Your task to perform on an android device: star an email in the gmail app Image 0: 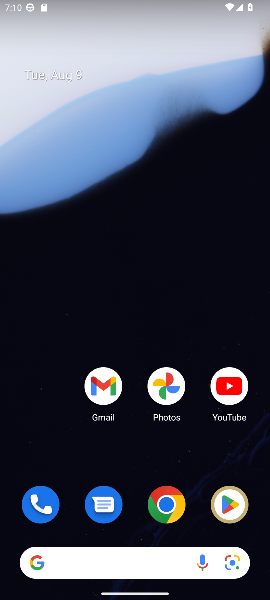
Step 0: drag from (71, 529) to (33, 114)
Your task to perform on an android device: star an email in the gmail app Image 1: 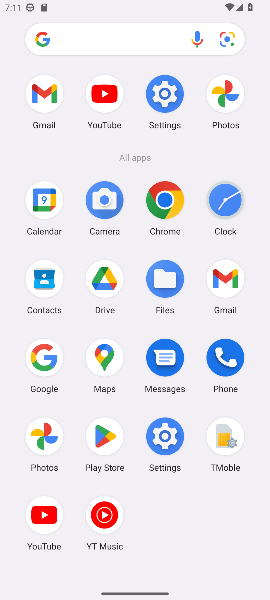
Step 1: click (222, 270)
Your task to perform on an android device: star an email in the gmail app Image 2: 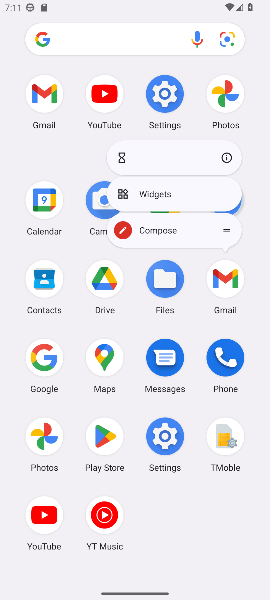
Step 2: click (233, 276)
Your task to perform on an android device: star an email in the gmail app Image 3: 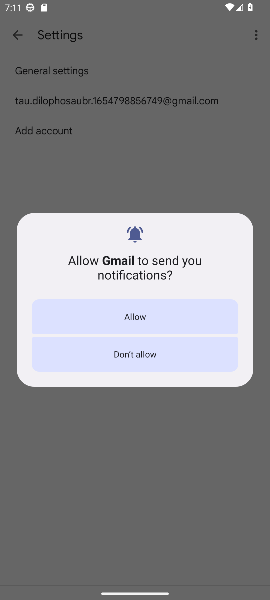
Step 3: click (163, 314)
Your task to perform on an android device: star an email in the gmail app Image 4: 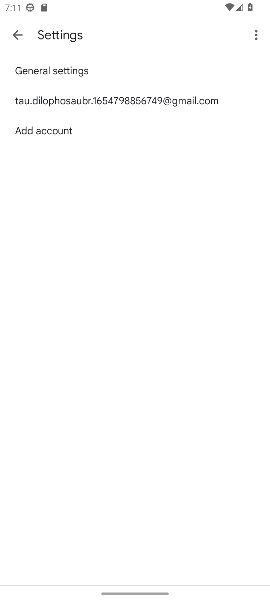
Step 4: click (7, 30)
Your task to perform on an android device: star an email in the gmail app Image 5: 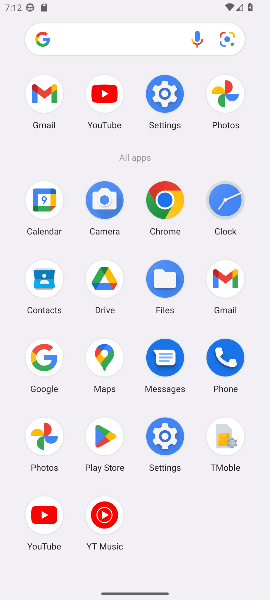
Step 5: click (230, 297)
Your task to perform on an android device: star an email in the gmail app Image 6: 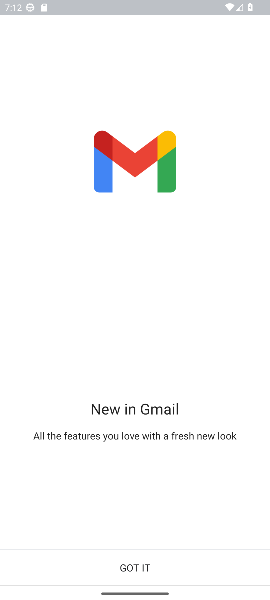
Step 6: click (169, 572)
Your task to perform on an android device: star an email in the gmail app Image 7: 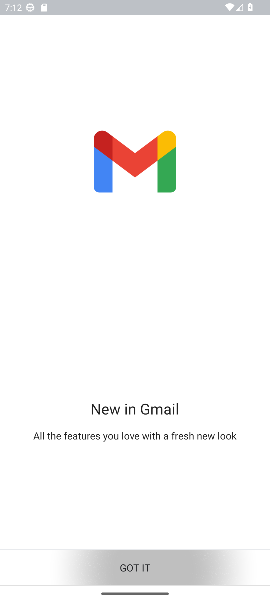
Step 7: click (169, 572)
Your task to perform on an android device: star an email in the gmail app Image 8: 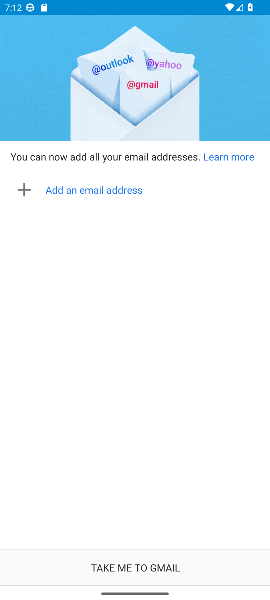
Step 8: click (169, 572)
Your task to perform on an android device: star an email in the gmail app Image 9: 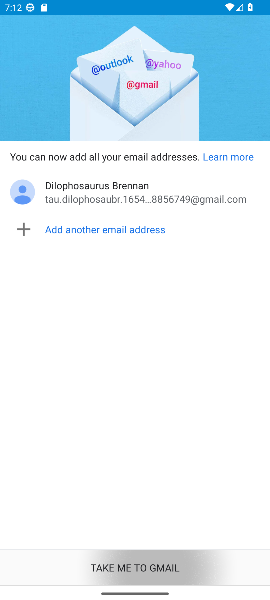
Step 9: click (169, 572)
Your task to perform on an android device: star an email in the gmail app Image 10: 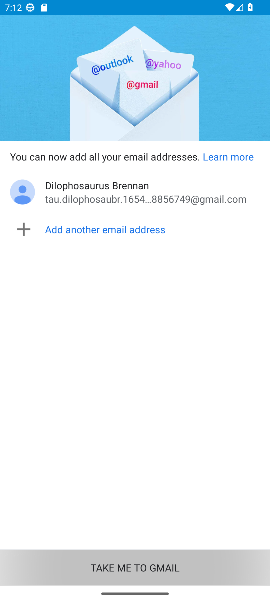
Step 10: click (169, 572)
Your task to perform on an android device: star an email in the gmail app Image 11: 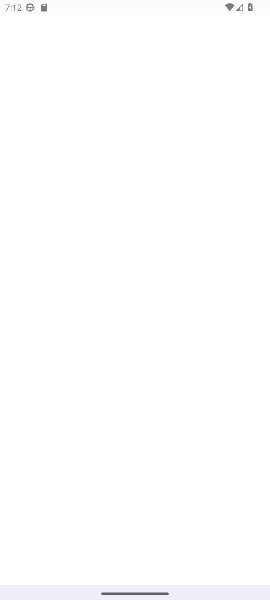
Step 11: click (169, 572)
Your task to perform on an android device: star an email in the gmail app Image 12: 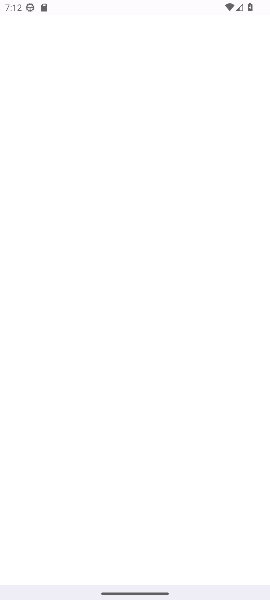
Step 12: click (169, 572)
Your task to perform on an android device: star an email in the gmail app Image 13: 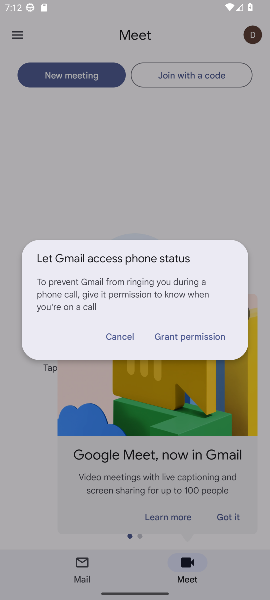
Step 13: click (124, 336)
Your task to perform on an android device: star an email in the gmail app Image 14: 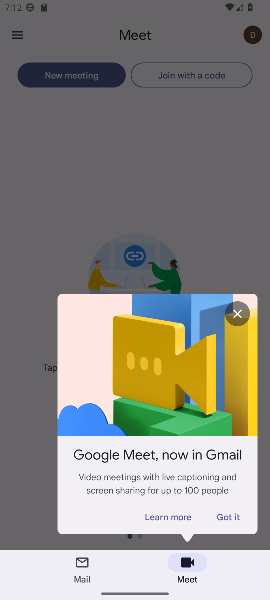
Step 14: click (236, 302)
Your task to perform on an android device: star an email in the gmail app Image 15: 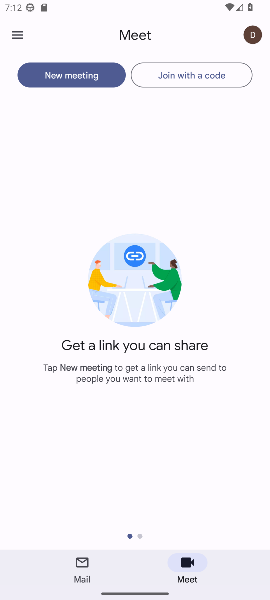
Step 15: click (18, 28)
Your task to perform on an android device: star an email in the gmail app Image 16: 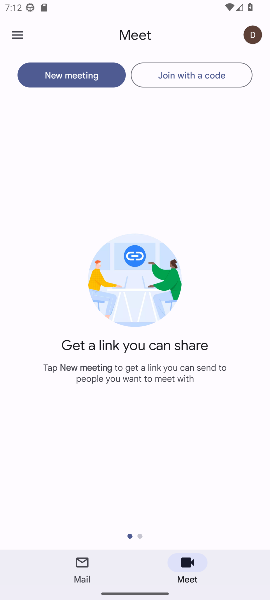
Step 16: click (12, 30)
Your task to perform on an android device: star an email in the gmail app Image 17: 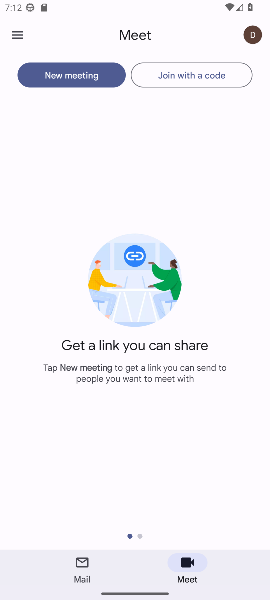
Step 17: press back button
Your task to perform on an android device: star an email in the gmail app Image 18: 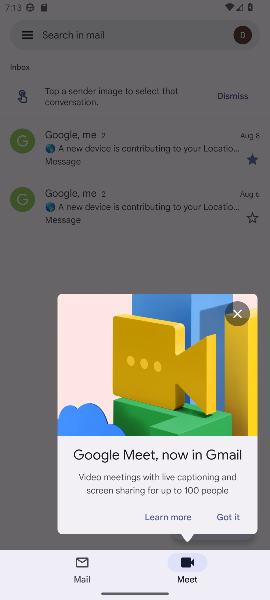
Step 18: click (241, 315)
Your task to perform on an android device: star an email in the gmail app Image 19: 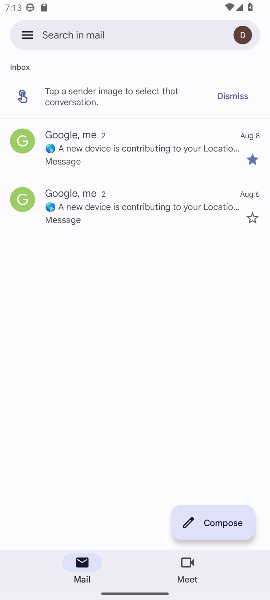
Step 19: click (252, 220)
Your task to perform on an android device: star an email in the gmail app Image 20: 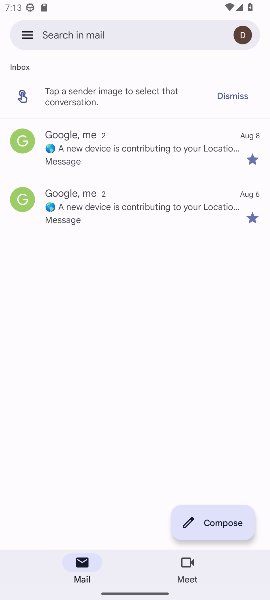
Step 20: task complete